Your task to perform on an android device: turn on bluetooth scan Image 0: 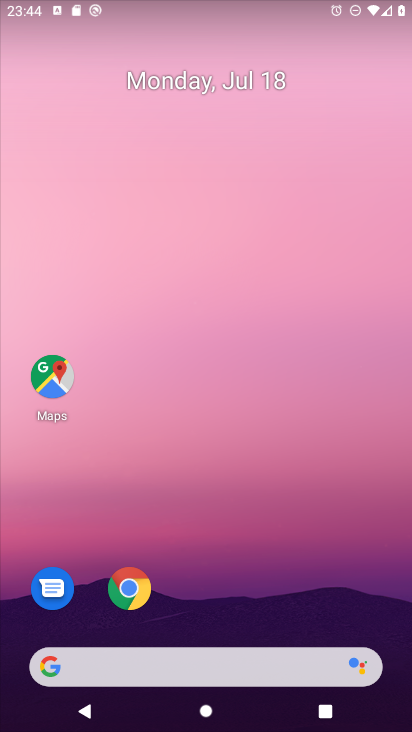
Step 0: drag from (379, 611) to (349, 79)
Your task to perform on an android device: turn on bluetooth scan Image 1: 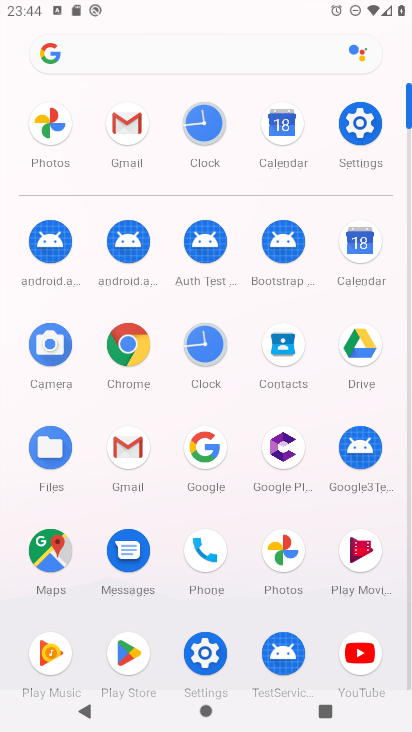
Step 1: click (207, 657)
Your task to perform on an android device: turn on bluetooth scan Image 2: 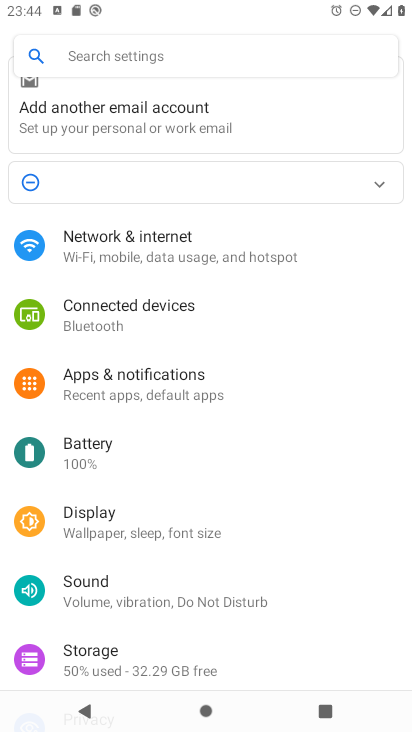
Step 2: drag from (334, 625) to (327, 259)
Your task to perform on an android device: turn on bluetooth scan Image 3: 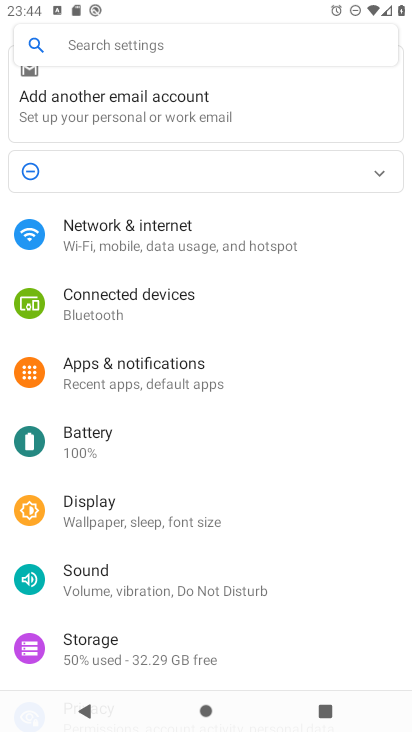
Step 3: drag from (294, 653) to (314, 207)
Your task to perform on an android device: turn on bluetooth scan Image 4: 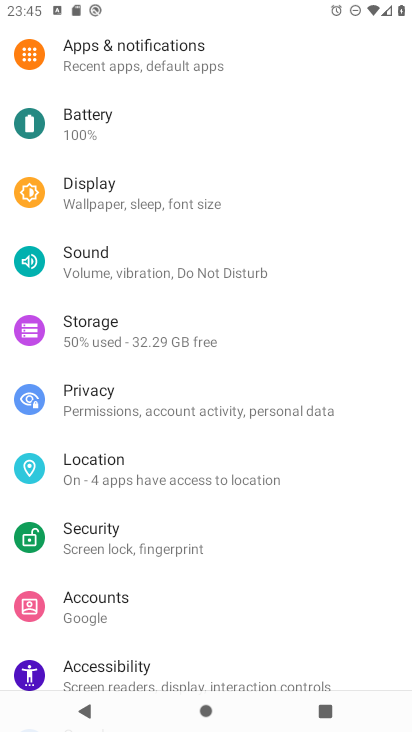
Step 4: click (87, 448)
Your task to perform on an android device: turn on bluetooth scan Image 5: 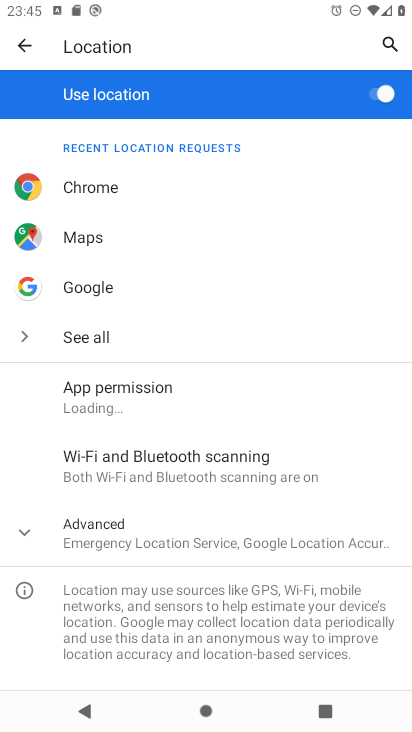
Step 5: click (172, 465)
Your task to perform on an android device: turn on bluetooth scan Image 6: 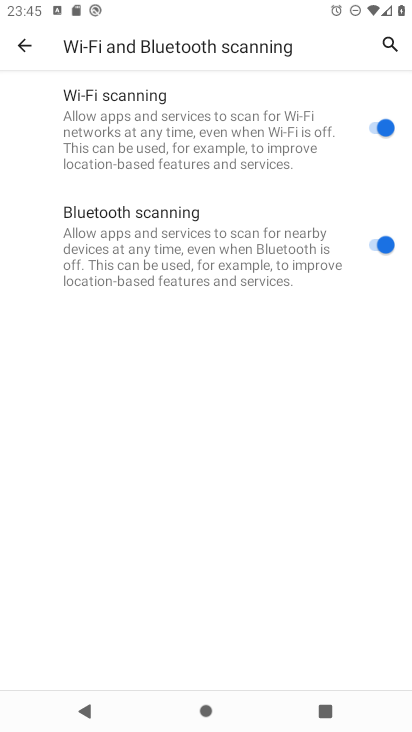
Step 6: task complete